Your task to perform on an android device: Go to Wikipedia Image 0: 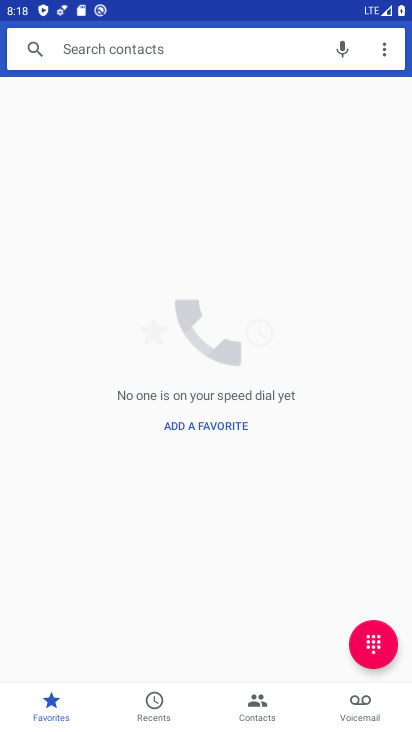
Step 0: press home button
Your task to perform on an android device: Go to Wikipedia Image 1: 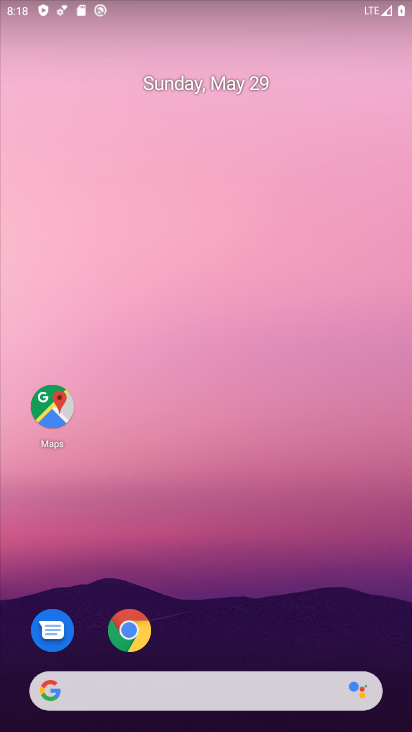
Step 1: click (188, 675)
Your task to perform on an android device: Go to Wikipedia Image 2: 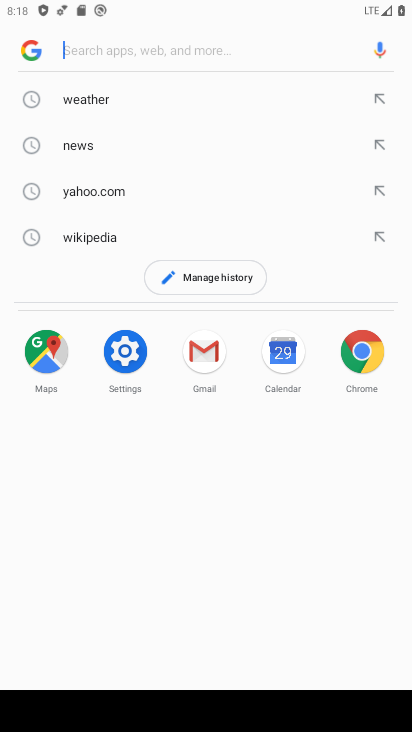
Step 2: click (102, 254)
Your task to perform on an android device: Go to Wikipedia Image 3: 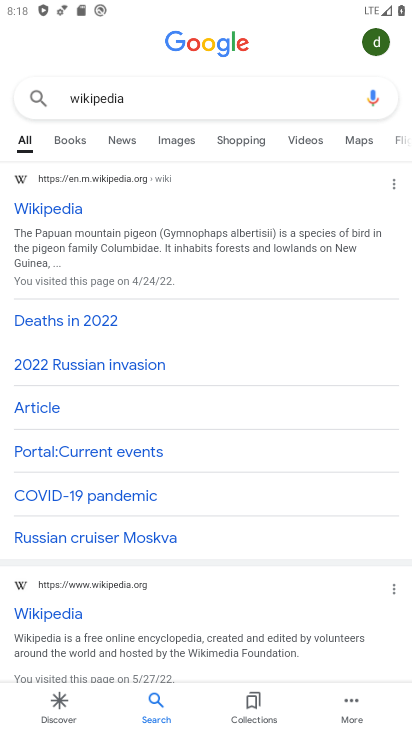
Step 3: task complete